Your task to perform on an android device: Search for vegetarian restaurants on Maps Image 0: 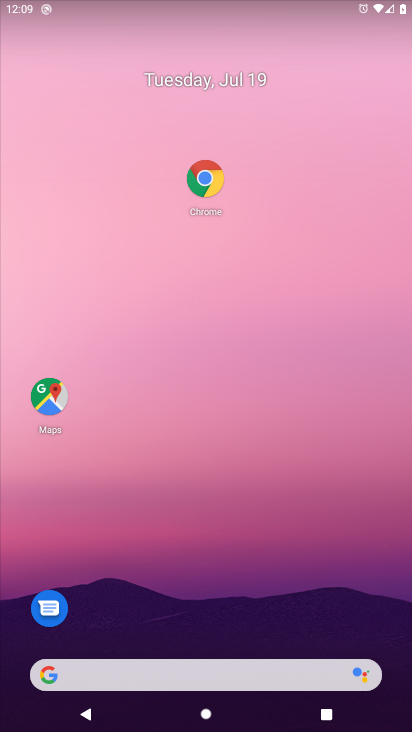
Step 0: click (155, 217)
Your task to perform on an android device: Search for vegetarian restaurants on Maps Image 1: 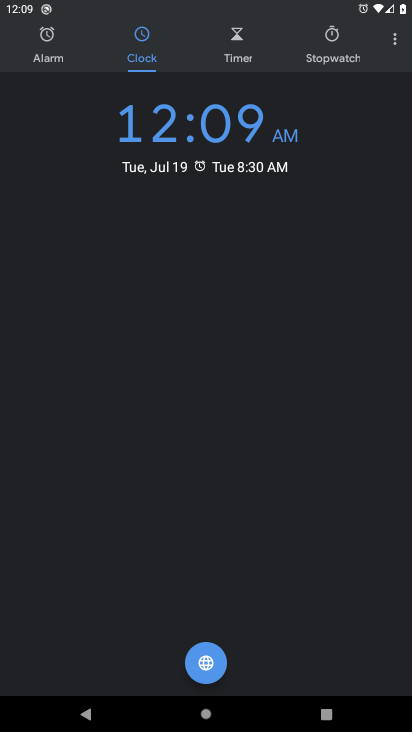
Step 1: press home button
Your task to perform on an android device: Search for vegetarian restaurants on Maps Image 2: 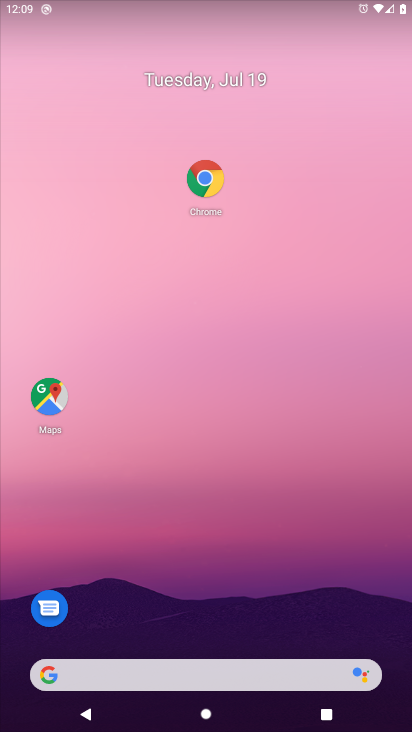
Step 2: click (34, 398)
Your task to perform on an android device: Search for vegetarian restaurants on Maps Image 3: 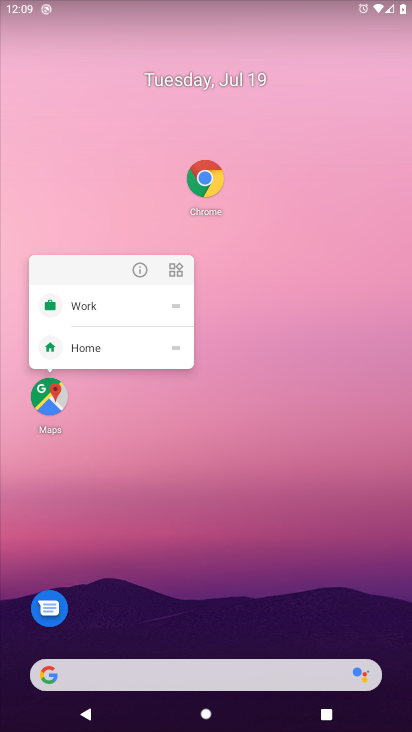
Step 3: click (36, 396)
Your task to perform on an android device: Search for vegetarian restaurants on Maps Image 4: 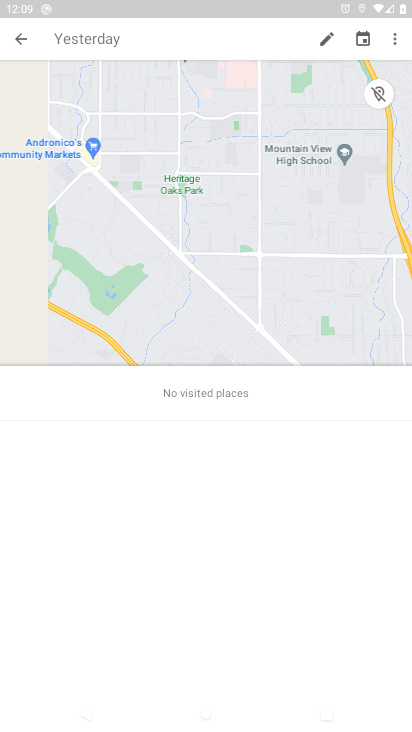
Step 4: click (16, 37)
Your task to perform on an android device: Search for vegetarian restaurants on Maps Image 5: 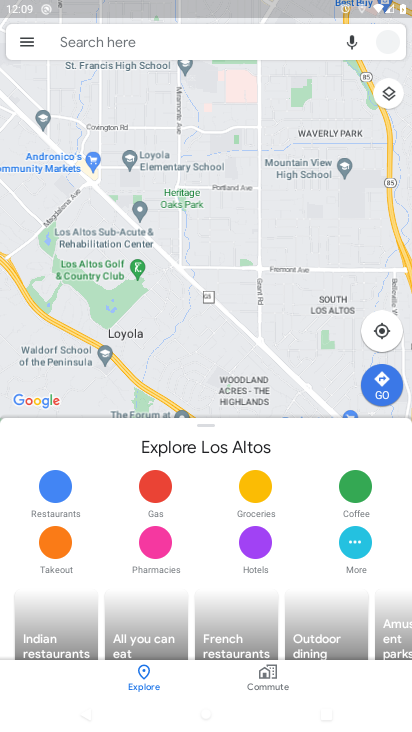
Step 5: click (64, 46)
Your task to perform on an android device: Search for vegetarian restaurants on Maps Image 6: 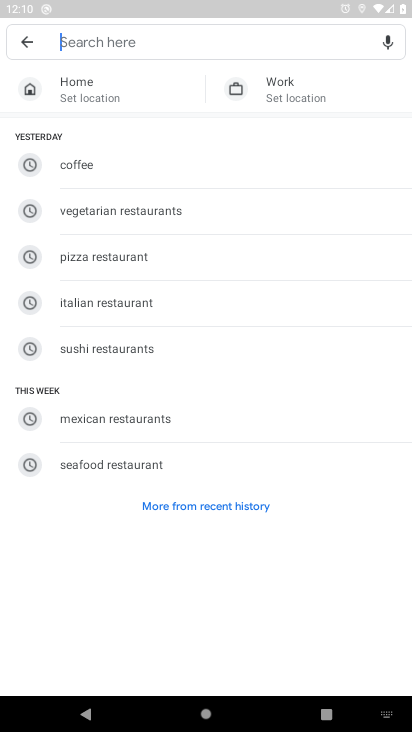
Step 6: click (122, 212)
Your task to perform on an android device: Search for vegetarian restaurants on Maps Image 7: 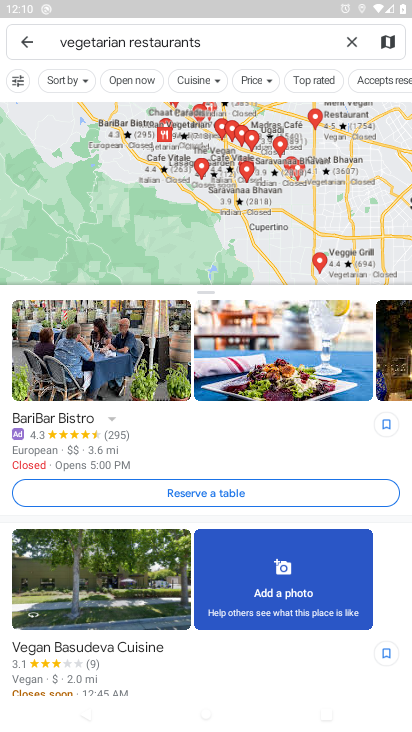
Step 7: task complete